Your task to perform on an android device: Open Google Chrome and click the shortcut for Amazon.com Image 0: 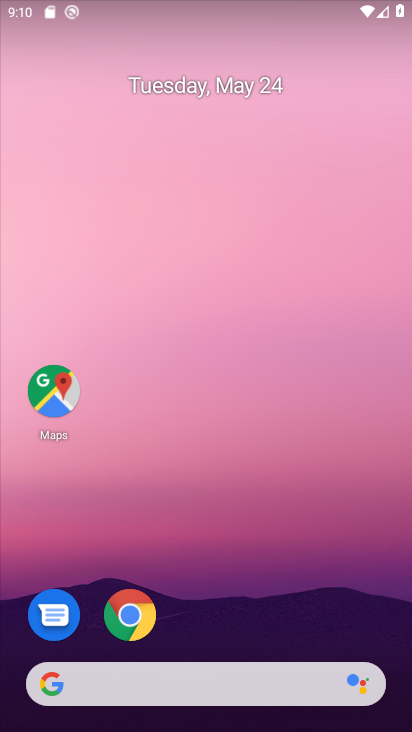
Step 0: drag from (389, 627) to (375, 290)
Your task to perform on an android device: Open Google Chrome and click the shortcut for Amazon.com Image 1: 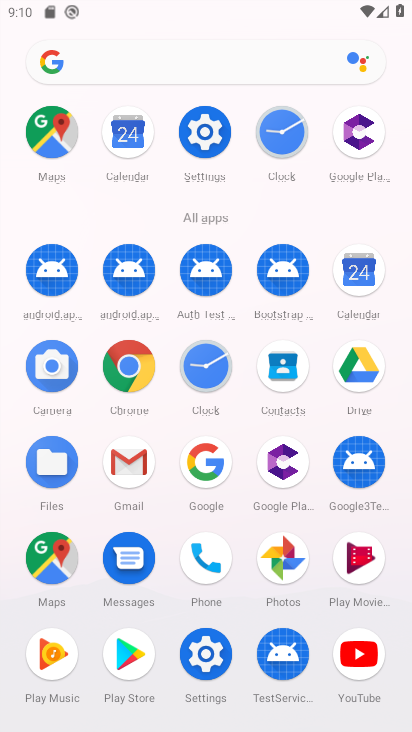
Step 1: click (143, 389)
Your task to perform on an android device: Open Google Chrome and click the shortcut for Amazon.com Image 2: 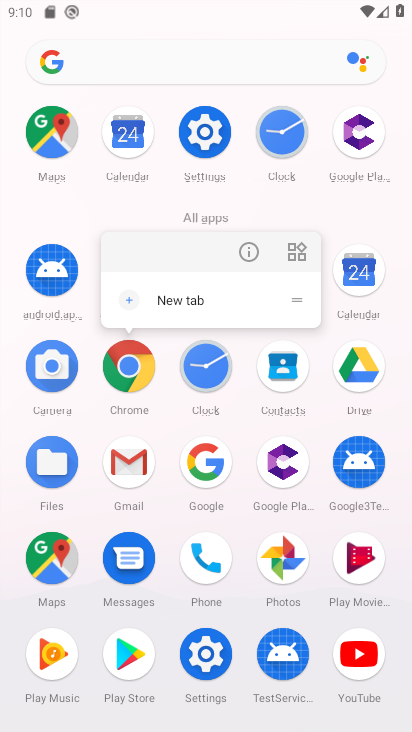
Step 2: click (143, 389)
Your task to perform on an android device: Open Google Chrome and click the shortcut for Amazon.com Image 3: 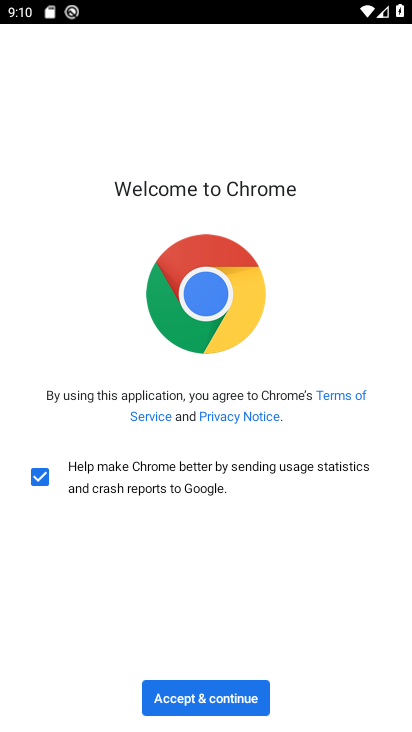
Step 3: click (226, 685)
Your task to perform on an android device: Open Google Chrome and click the shortcut for Amazon.com Image 4: 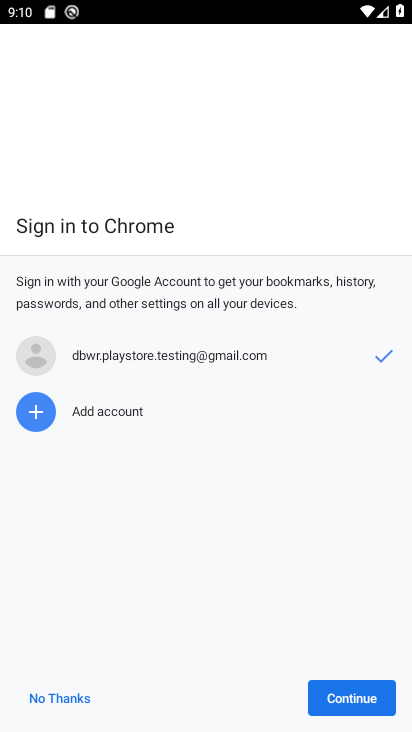
Step 4: click (332, 690)
Your task to perform on an android device: Open Google Chrome and click the shortcut for Amazon.com Image 5: 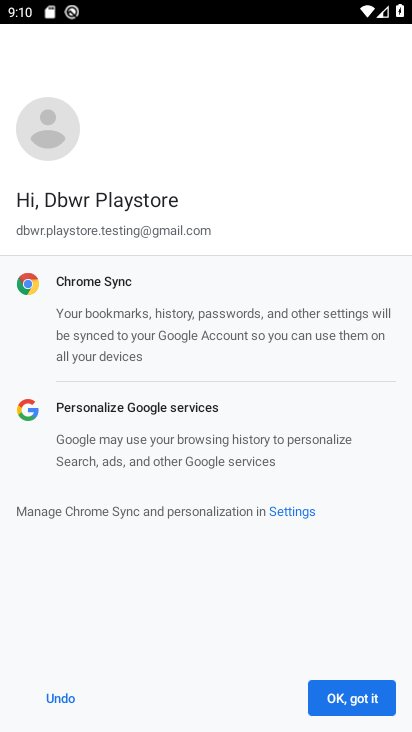
Step 5: click (343, 702)
Your task to perform on an android device: Open Google Chrome and click the shortcut for Amazon.com Image 6: 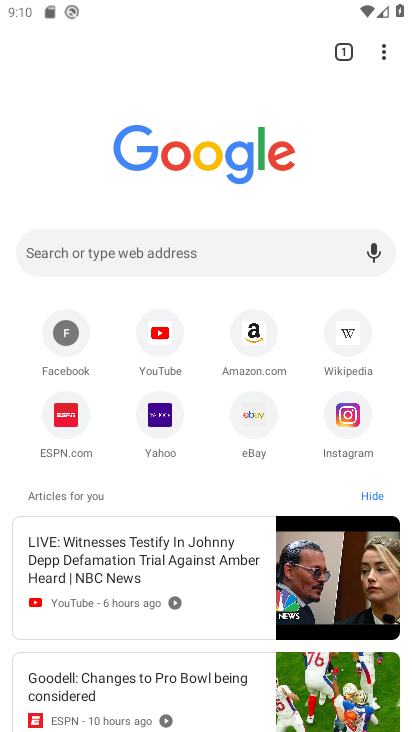
Step 6: click (265, 341)
Your task to perform on an android device: Open Google Chrome and click the shortcut for Amazon.com Image 7: 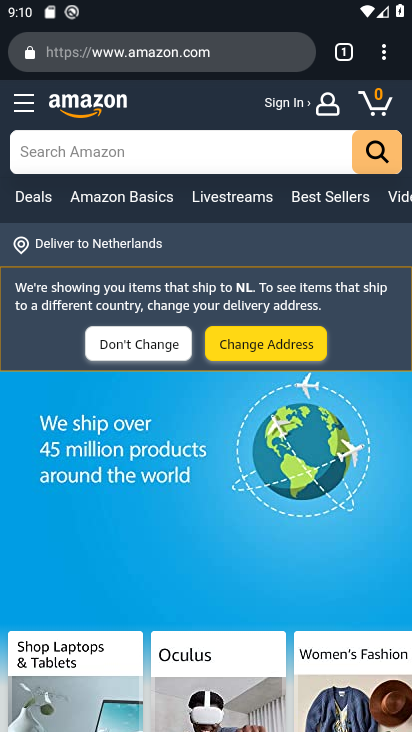
Step 7: task complete